Your task to perform on an android device: Show me some nice wallpapers for my phone Image 0: 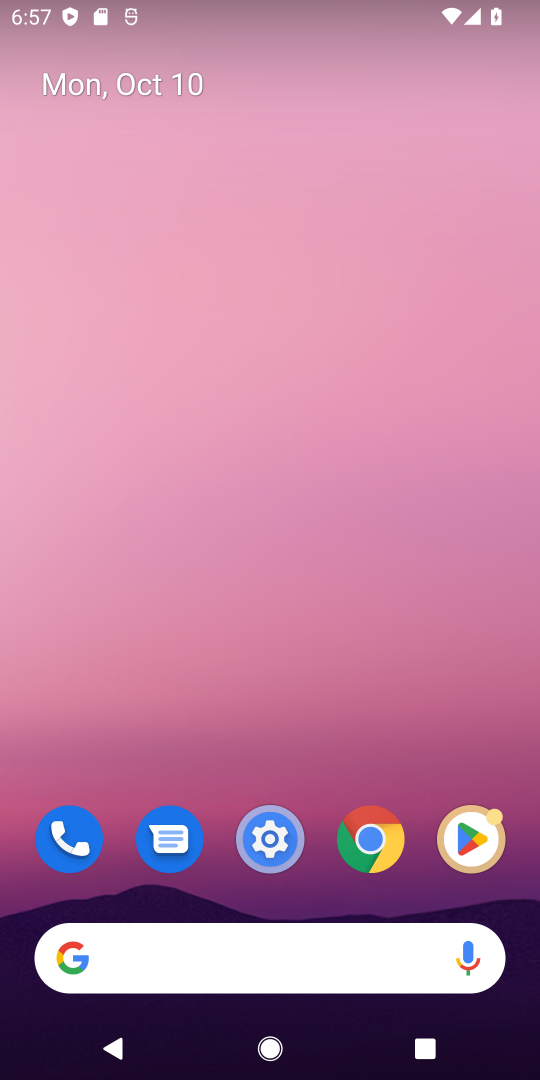
Step 0: click (278, 939)
Your task to perform on an android device: Show me some nice wallpapers for my phone Image 1: 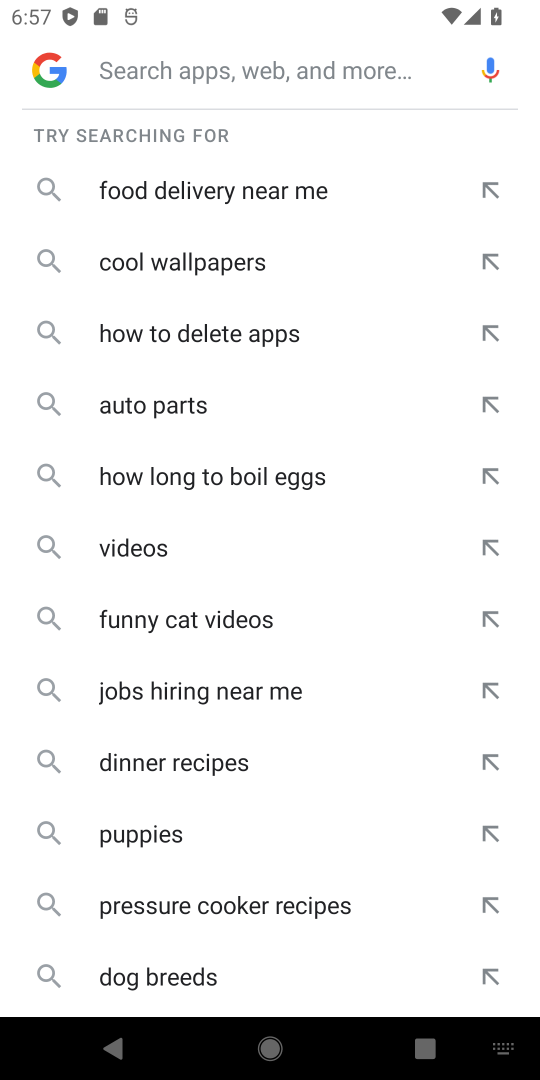
Step 1: type "Show me some nice wallpapers for my phone"
Your task to perform on an android device: Show me some nice wallpapers for my phone Image 2: 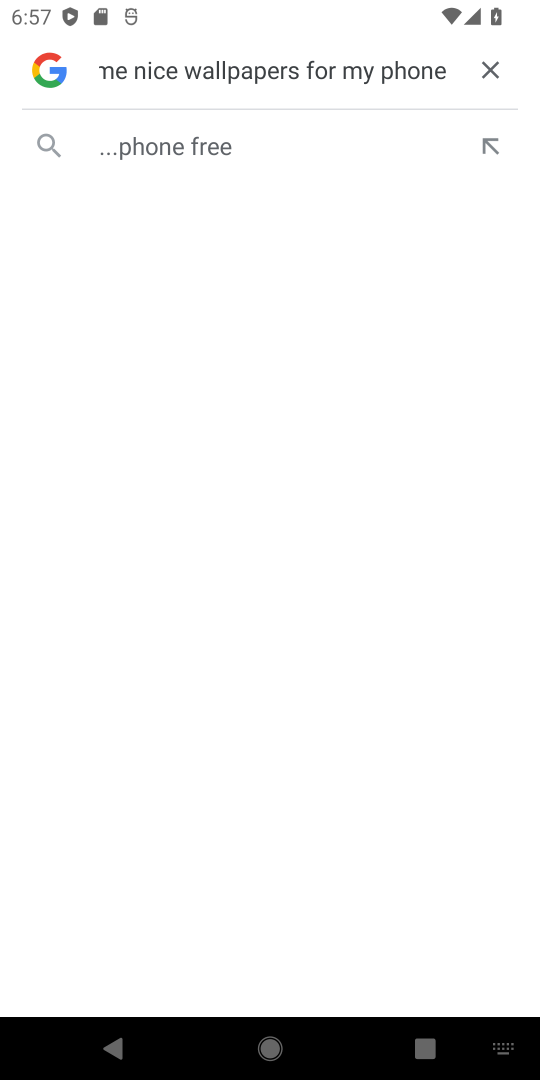
Step 2: click (175, 151)
Your task to perform on an android device: Show me some nice wallpapers for my phone Image 3: 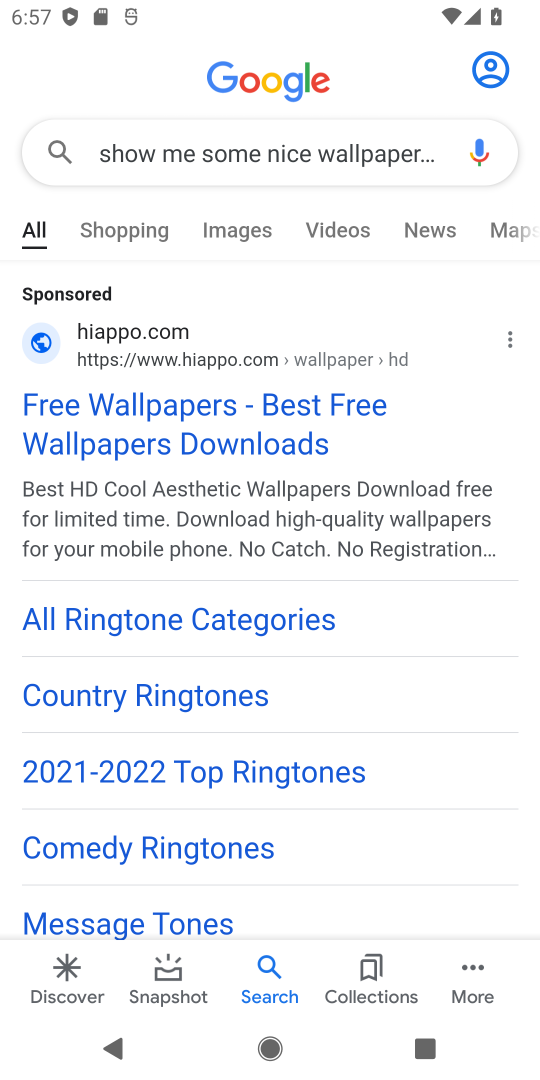
Step 3: click (195, 412)
Your task to perform on an android device: Show me some nice wallpapers for my phone Image 4: 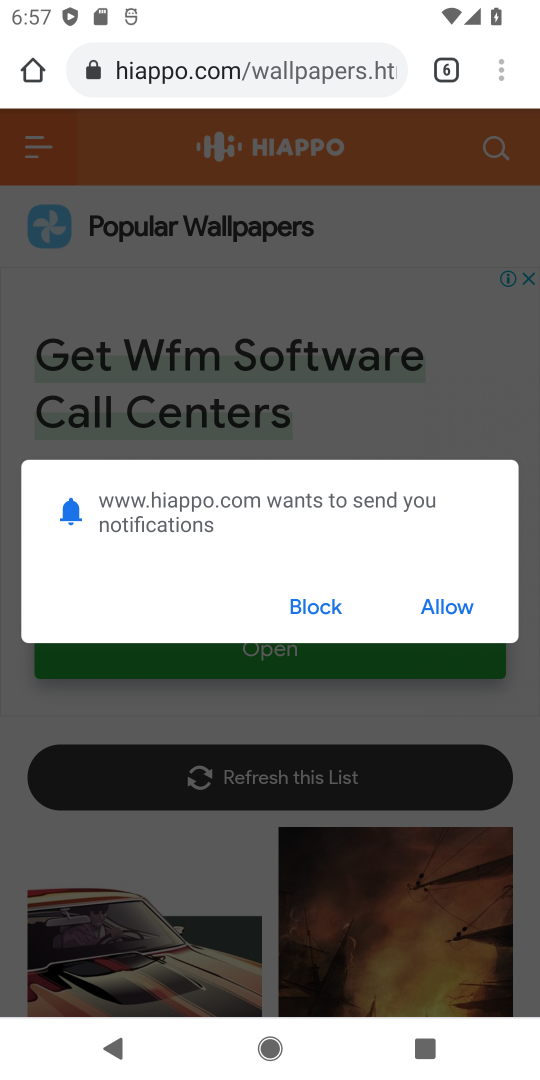
Step 4: click (431, 605)
Your task to perform on an android device: Show me some nice wallpapers for my phone Image 5: 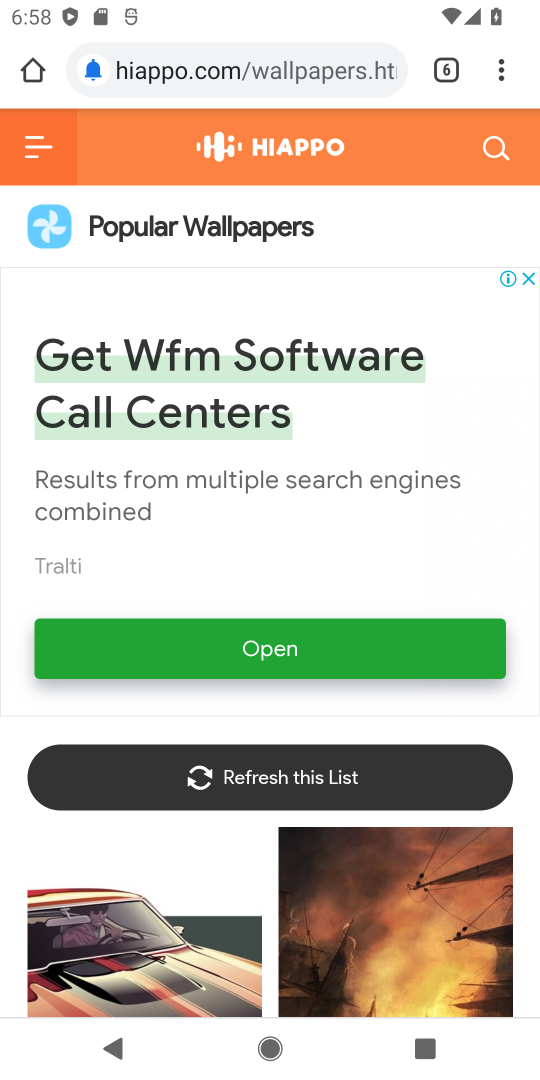
Step 5: task complete